Your task to perform on an android device: Is it going to rain this weekend? Image 0: 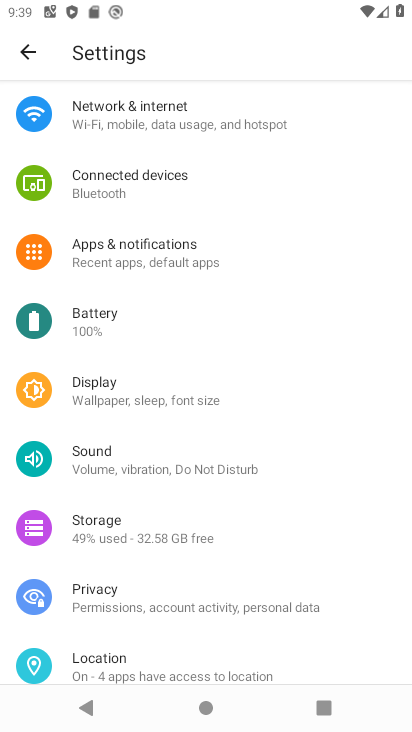
Step 0: press home button
Your task to perform on an android device: Is it going to rain this weekend? Image 1: 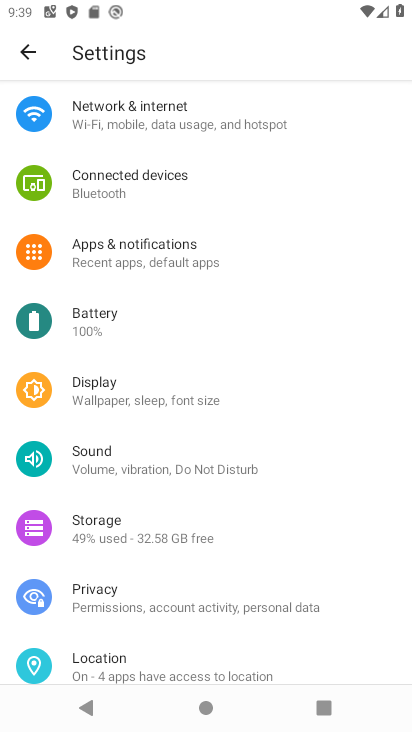
Step 1: press home button
Your task to perform on an android device: Is it going to rain this weekend? Image 2: 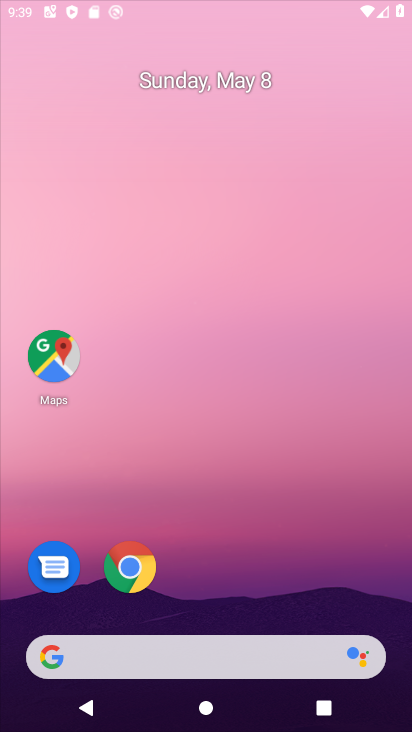
Step 2: press home button
Your task to perform on an android device: Is it going to rain this weekend? Image 3: 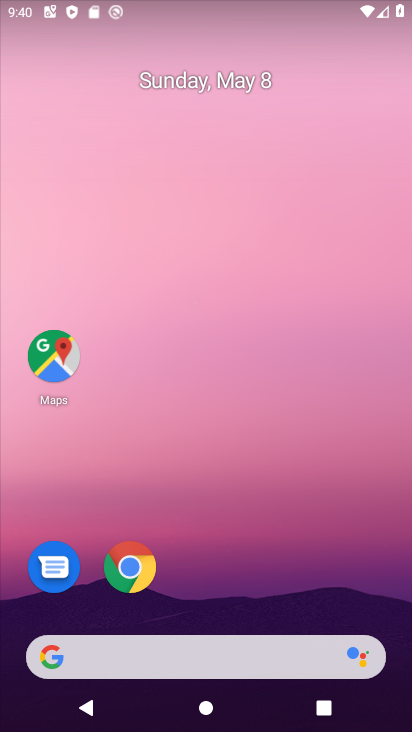
Step 3: drag from (2, 196) to (396, 407)
Your task to perform on an android device: Is it going to rain this weekend? Image 4: 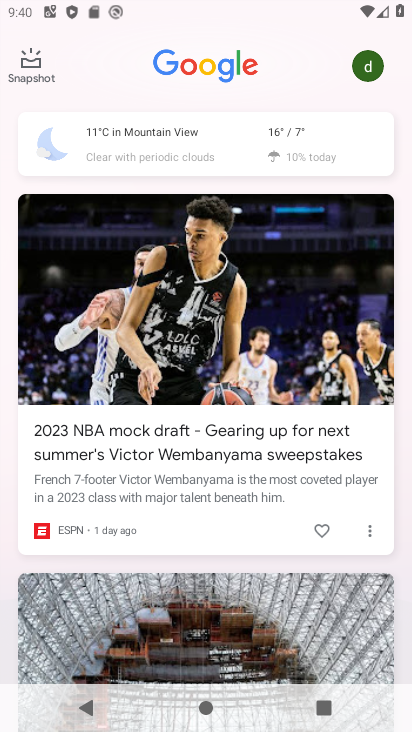
Step 4: click (203, 153)
Your task to perform on an android device: Is it going to rain this weekend? Image 5: 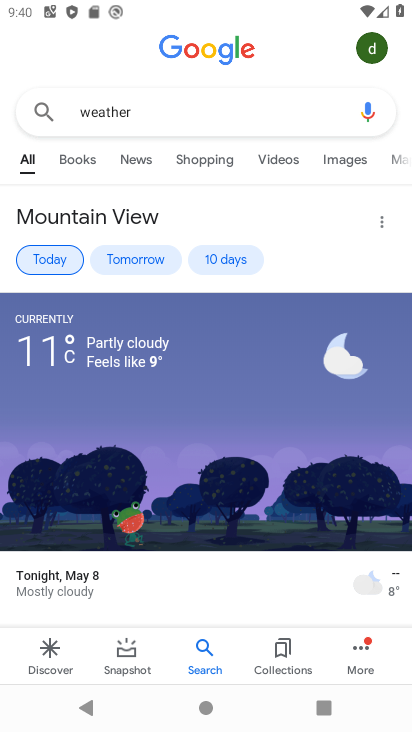
Step 5: task complete